Your task to perform on an android device: turn off notifications in google photos Image 0: 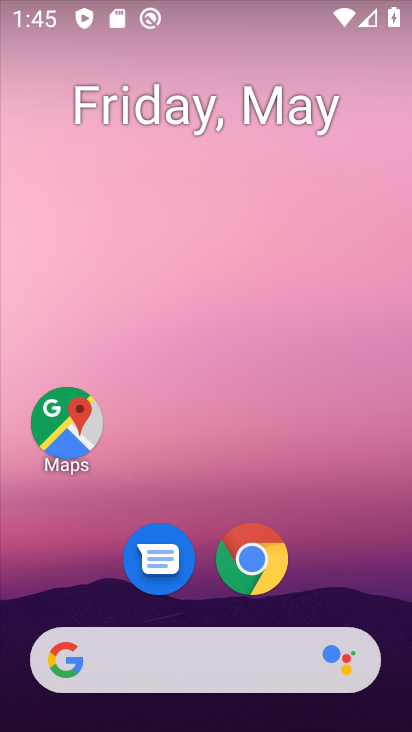
Step 0: drag from (324, 585) to (303, 156)
Your task to perform on an android device: turn off notifications in google photos Image 1: 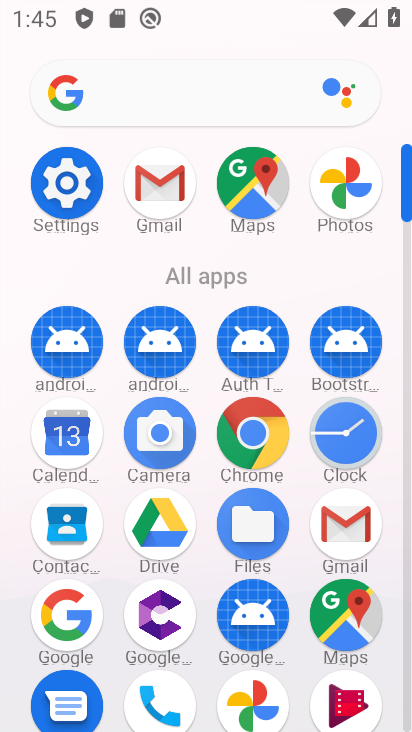
Step 1: click (344, 186)
Your task to perform on an android device: turn off notifications in google photos Image 2: 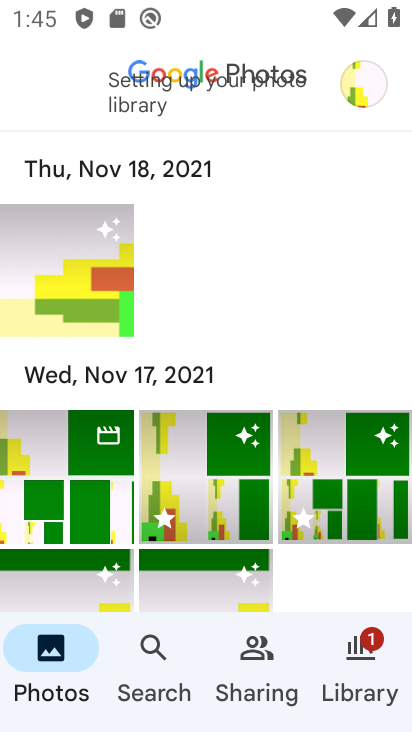
Step 2: click (365, 74)
Your task to perform on an android device: turn off notifications in google photos Image 3: 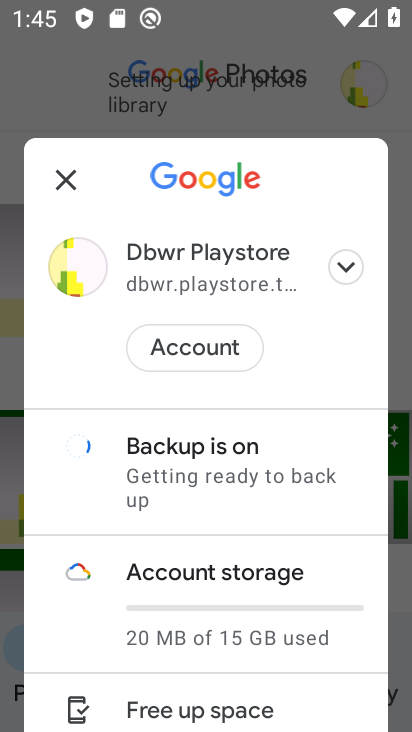
Step 3: drag from (259, 642) to (302, 223)
Your task to perform on an android device: turn off notifications in google photos Image 4: 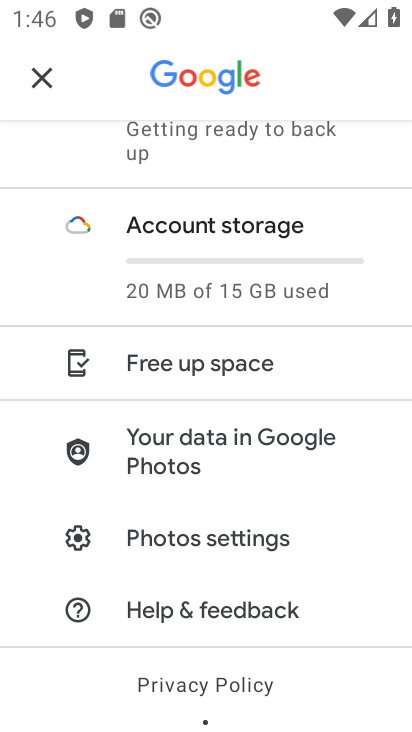
Step 4: click (231, 528)
Your task to perform on an android device: turn off notifications in google photos Image 5: 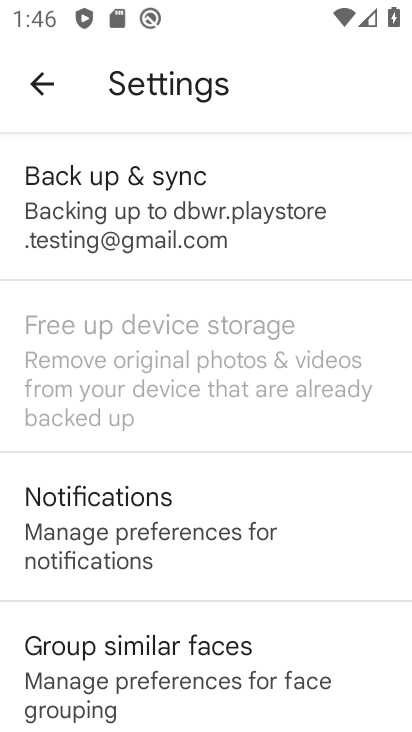
Step 5: click (224, 547)
Your task to perform on an android device: turn off notifications in google photos Image 6: 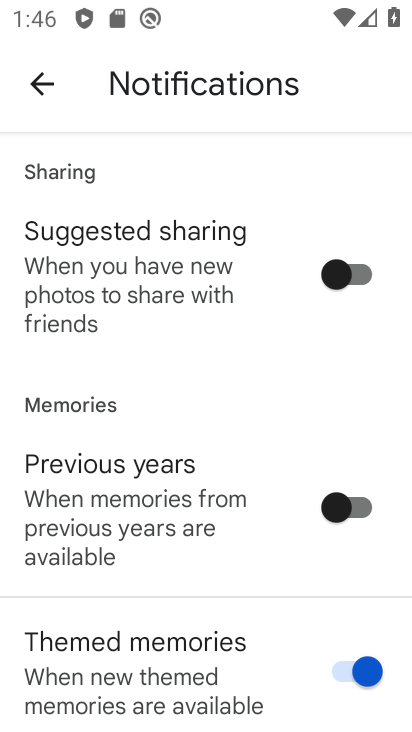
Step 6: drag from (227, 608) to (247, 140)
Your task to perform on an android device: turn off notifications in google photos Image 7: 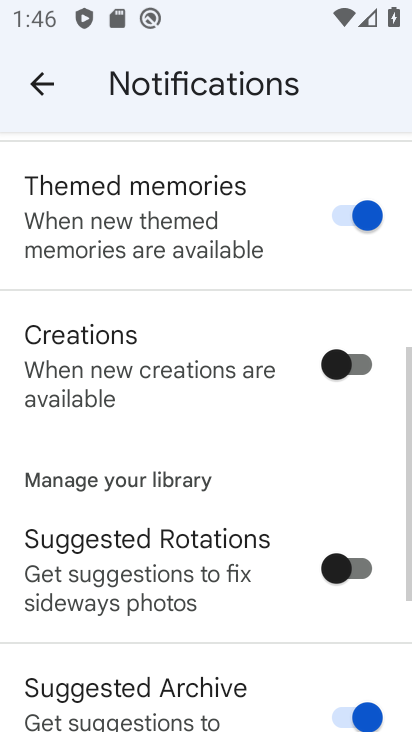
Step 7: drag from (169, 651) to (175, 142)
Your task to perform on an android device: turn off notifications in google photos Image 8: 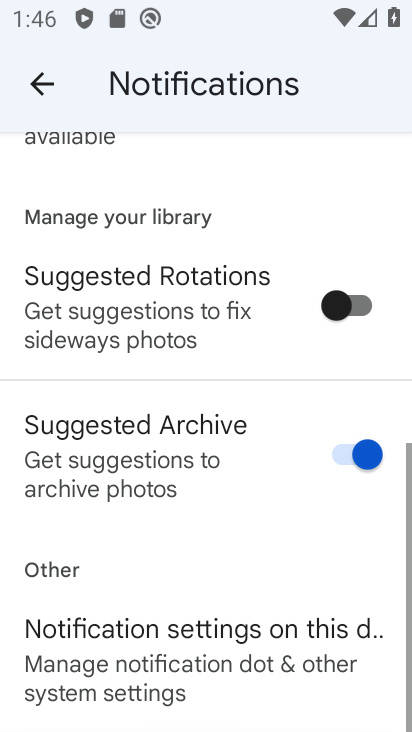
Step 8: drag from (190, 707) to (235, 254)
Your task to perform on an android device: turn off notifications in google photos Image 9: 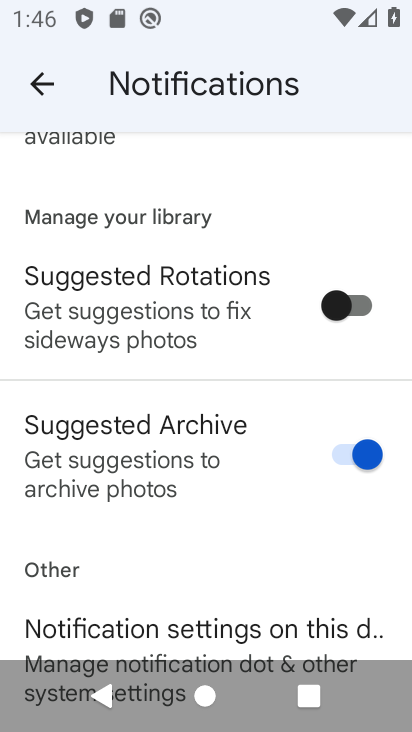
Step 9: click (227, 625)
Your task to perform on an android device: turn off notifications in google photos Image 10: 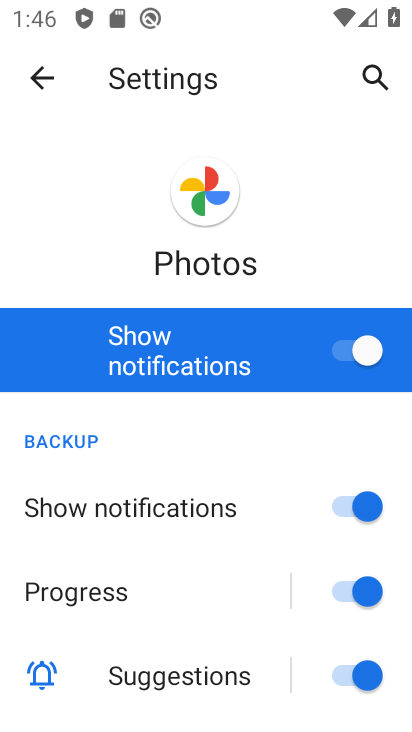
Step 10: click (376, 354)
Your task to perform on an android device: turn off notifications in google photos Image 11: 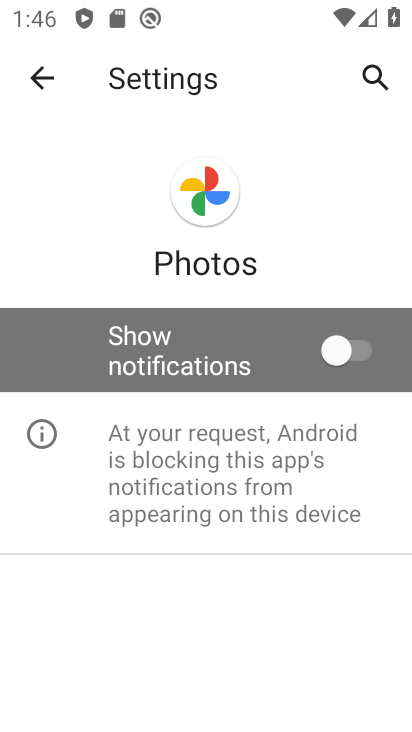
Step 11: task complete